Your task to perform on an android device: Is it going to rain tomorrow? Image 0: 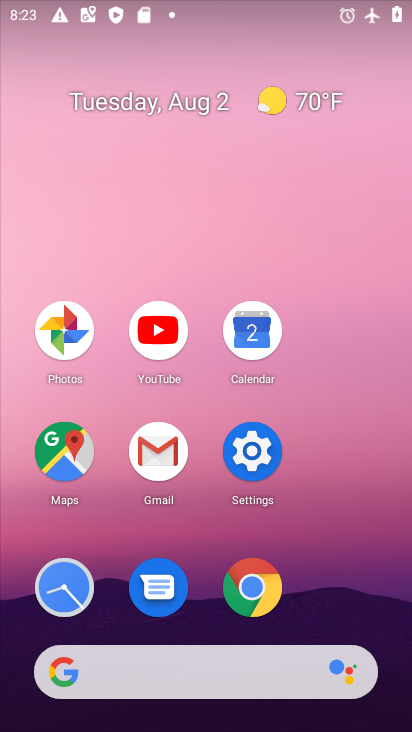
Step 0: click (211, 675)
Your task to perform on an android device: Is it going to rain tomorrow? Image 1: 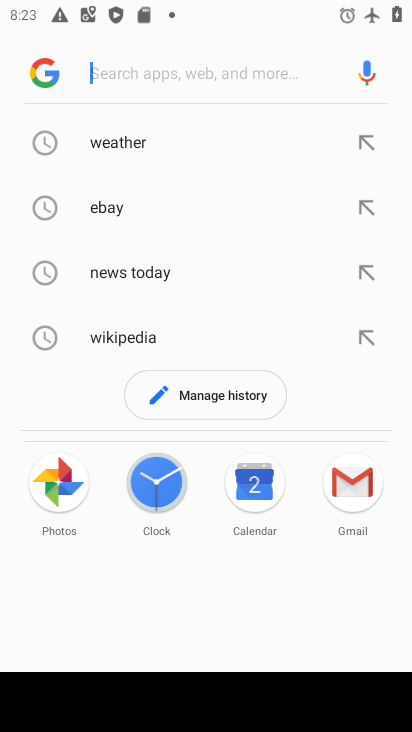
Step 1: click (124, 132)
Your task to perform on an android device: Is it going to rain tomorrow? Image 2: 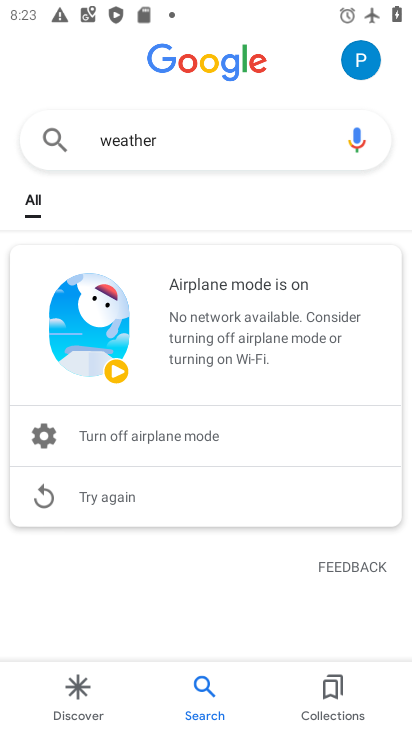
Step 2: task complete